Your task to perform on an android device: turn pop-ups on in chrome Image 0: 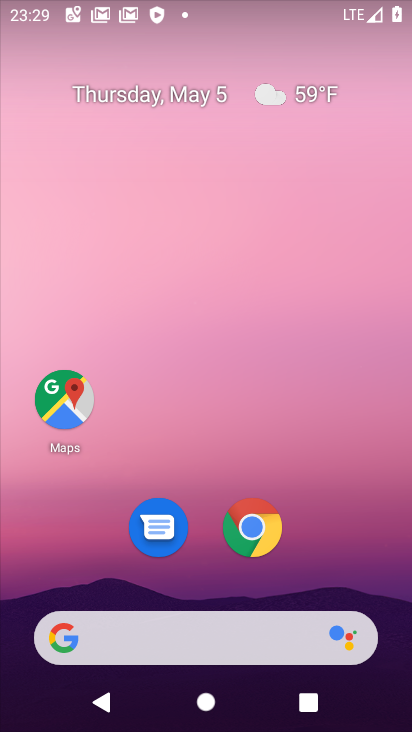
Step 0: drag from (207, 579) to (264, 17)
Your task to perform on an android device: turn pop-ups on in chrome Image 1: 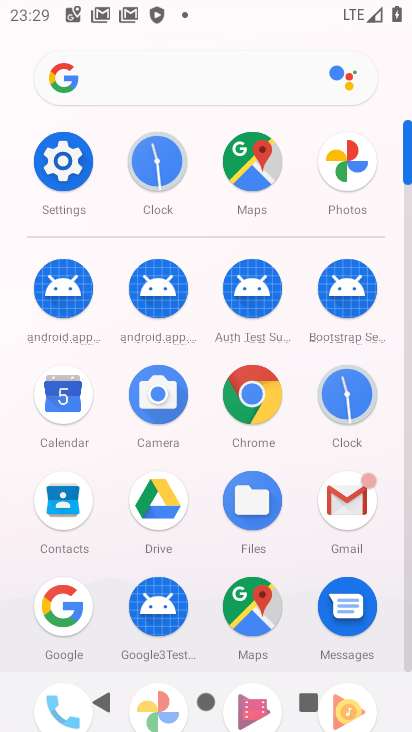
Step 1: click (254, 399)
Your task to perform on an android device: turn pop-ups on in chrome Image 2: 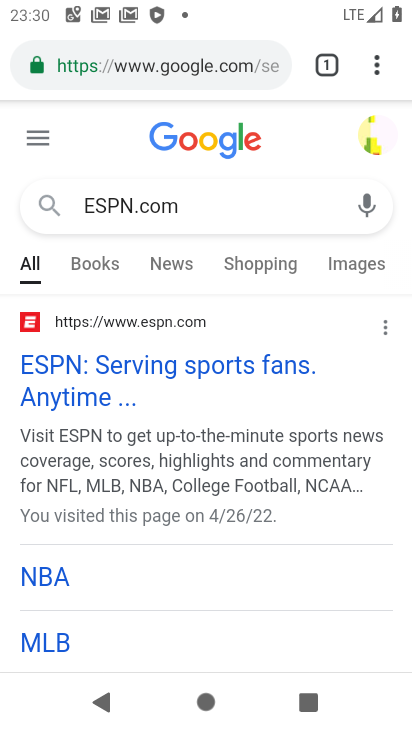
Step 2: click (379, 80)
Your task to perform on an android device: turn pop-ups on in chrome Image 3: 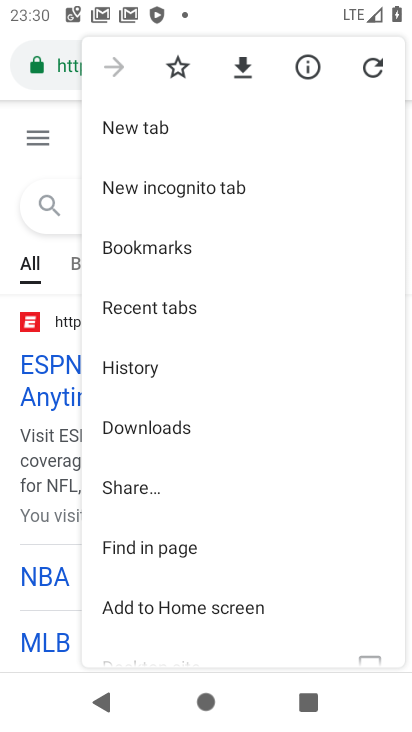
Step 3: drag from (180, 536) to (184, 189)
Your task to perform on an android device: turn pop-ups on in chrome Image 4: 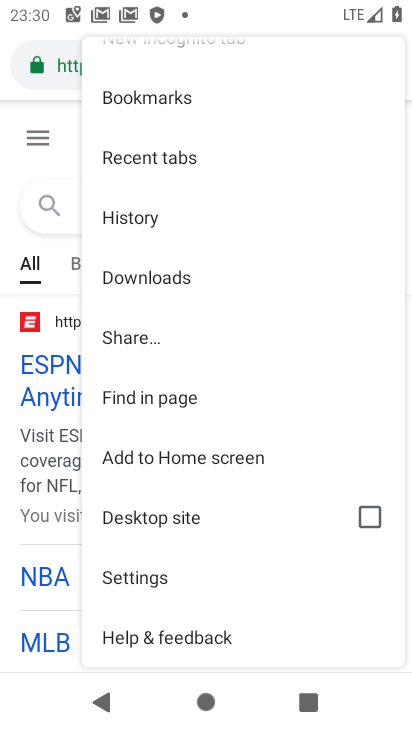
Step 4: click (160, 582)
Your task to perform on an android device: turn pop-ups on in chrome Image 5: 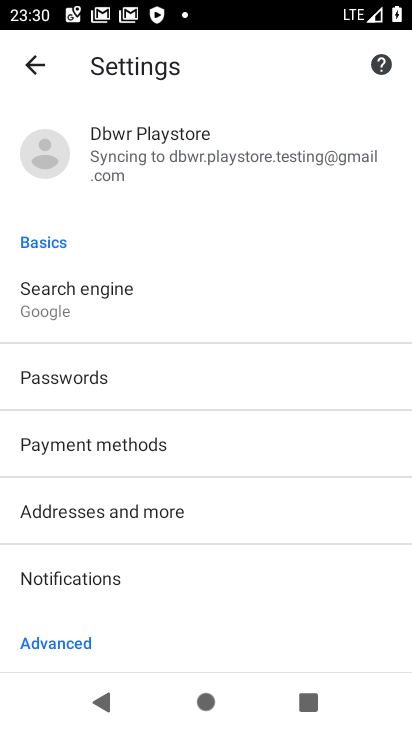
Step 5: drag from (102, 530) to (160, 141)
Your task to perform on an android device: turn pop-ups on in chrome Image 6: 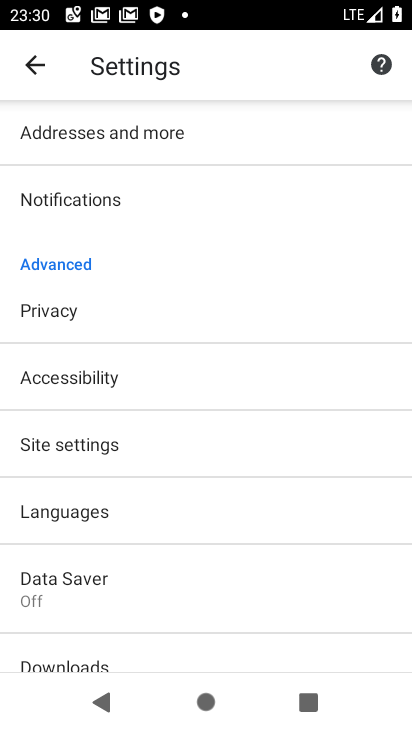
Step 6: click (110, 452)
Your task to perform on an android device: turn pop-ups on in chrome Image 7: 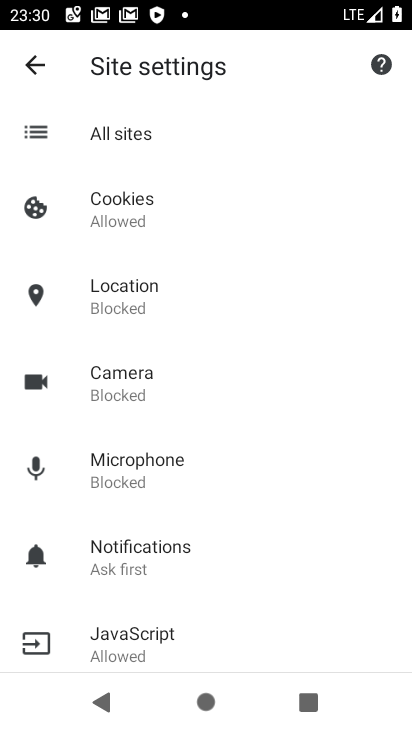
Step 7: drag from (158, 543) to (157, 234)
Your task to perform on an android device: turn pop-ups on in chrome Image 8: 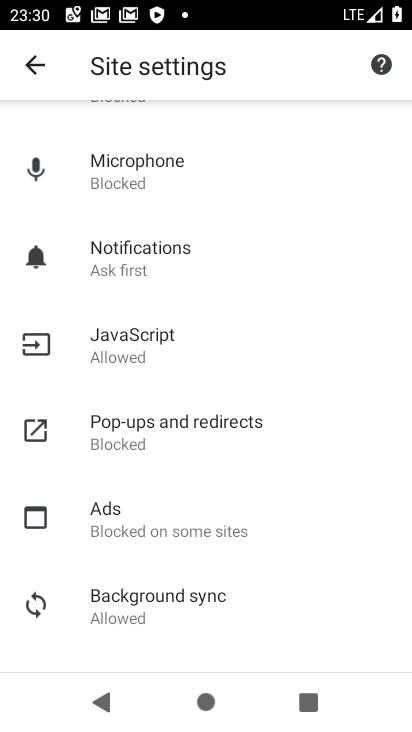
Step 8: click (140, 448)
Your task to perform on an android device: turn pop-ups on in chrome Image 9: 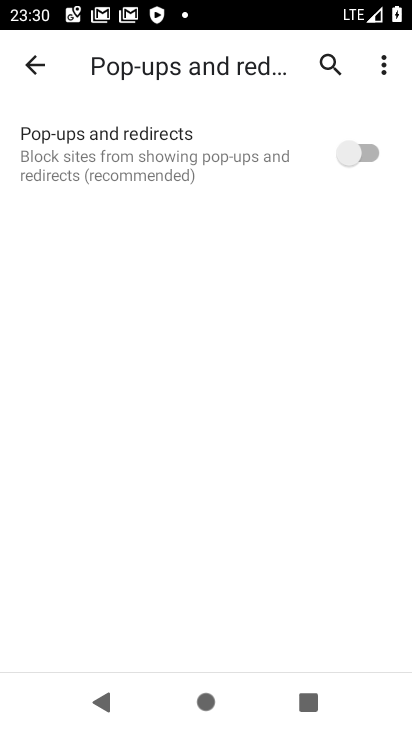
Step 9: click (367, 143)
Your task to perform on an android device: turn pop-ups on in chrome Image 10: 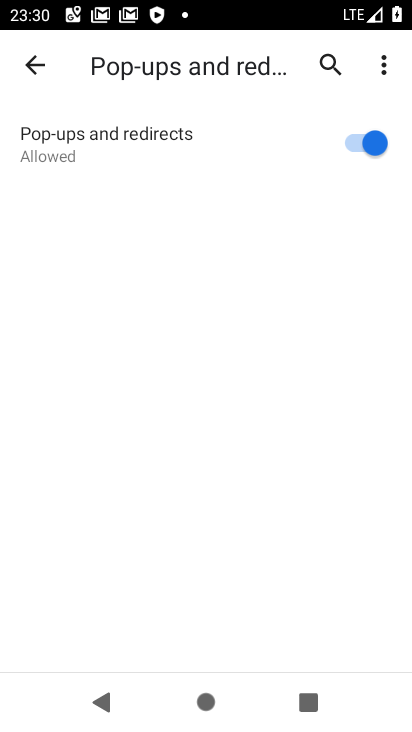
Step 10: task complete